Your task to perform on an android device: Open Yahoo.com Image 0: 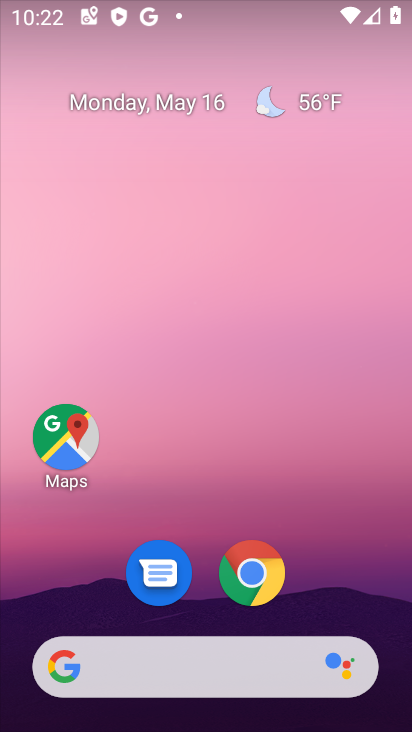
Step 0: click (265, 571)
Your task to perform on an android device: Open Yahoo.com Image 1: 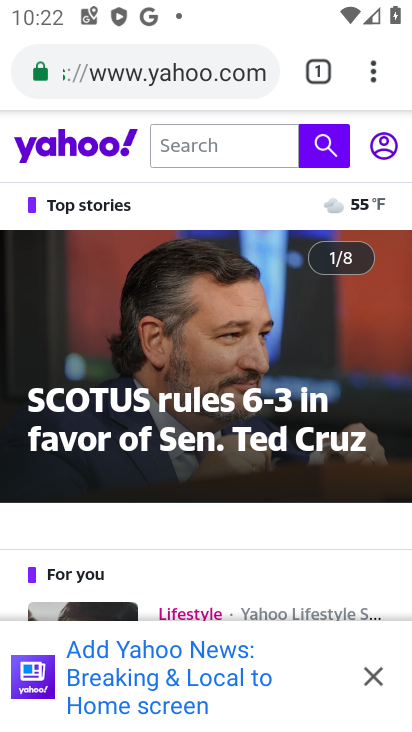
Step 1: click (335, 78)
Your task to perform on an android device: Open Yahoo.com Image 2: 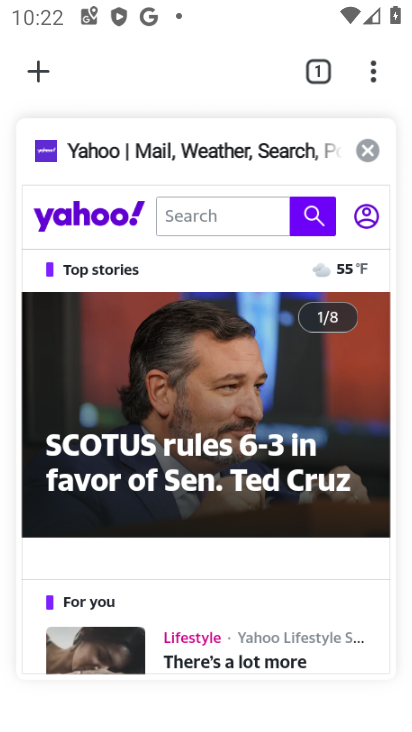
Step 2: click (371, 150)
Your task to perform on an android device: Open Yahoo.com Image 3: 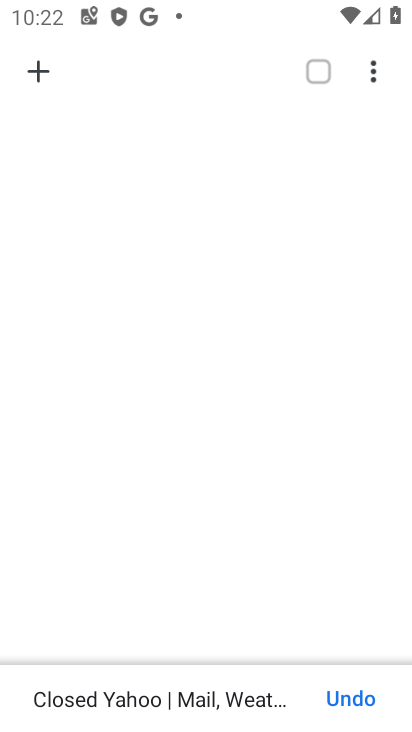
Step 3: click (43, 70)
Your task to perform on an android device: Open Yahoo.com Image 4: 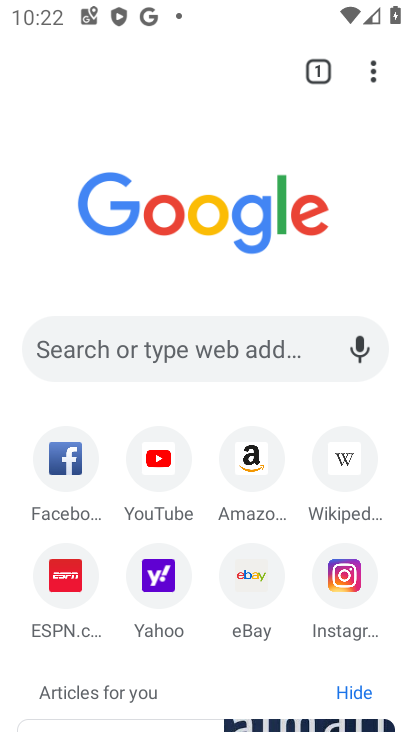
Step 4: click (164, 572)
Your task to perform on an android device: Open Yahoo.com Image 5: 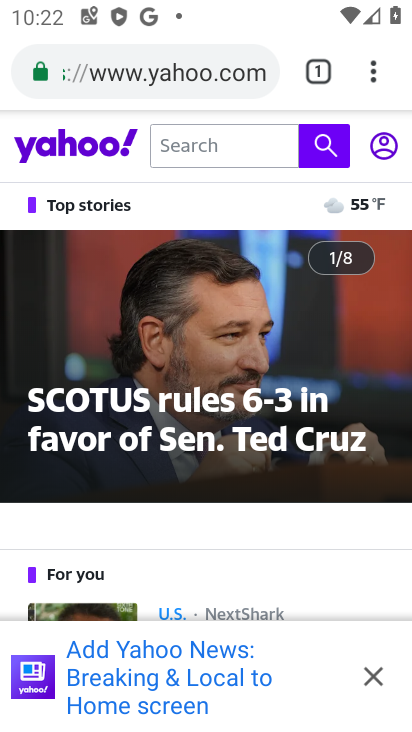
Step 5: task complete